Your task to perform on an android device: What's on the menu at Chipotle? Image 0: 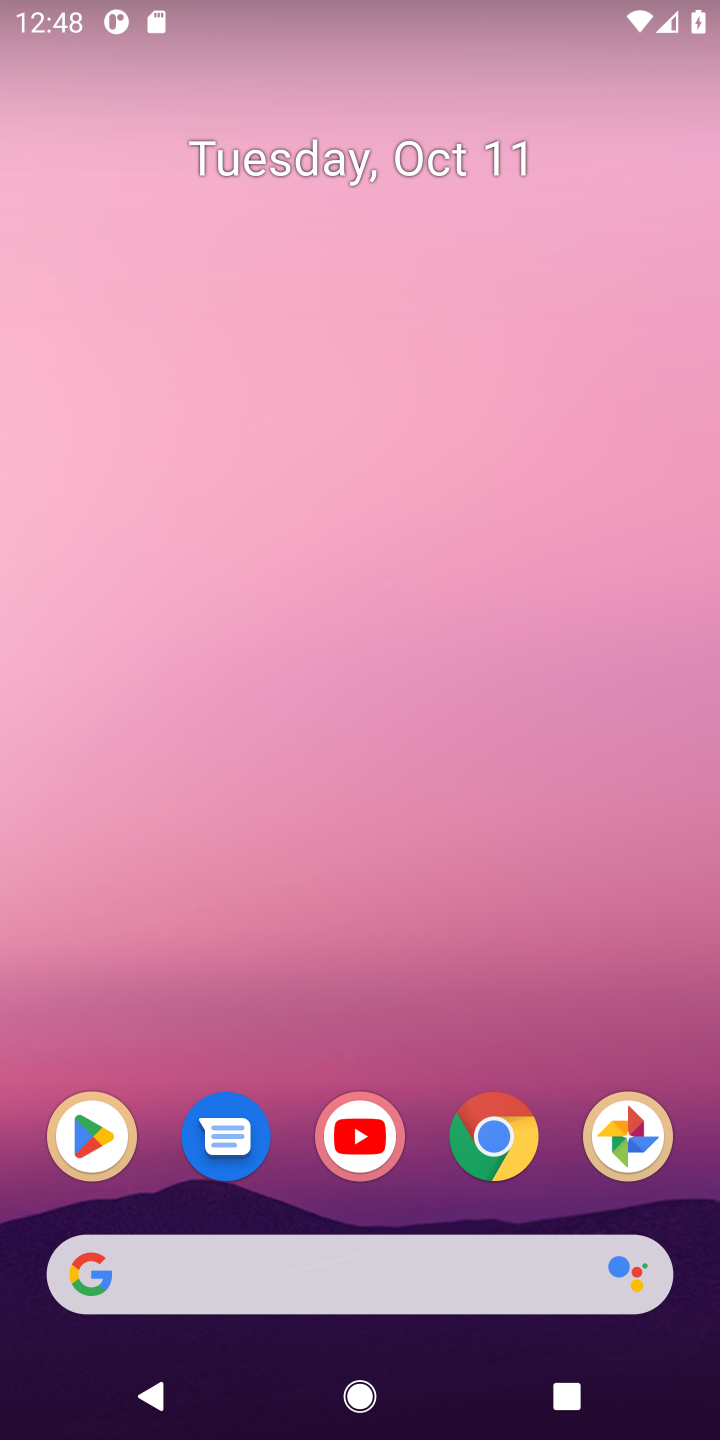
Step 0: press home button
Your task to perform on an android device: What's on the menu at Chipotle? Image 1: 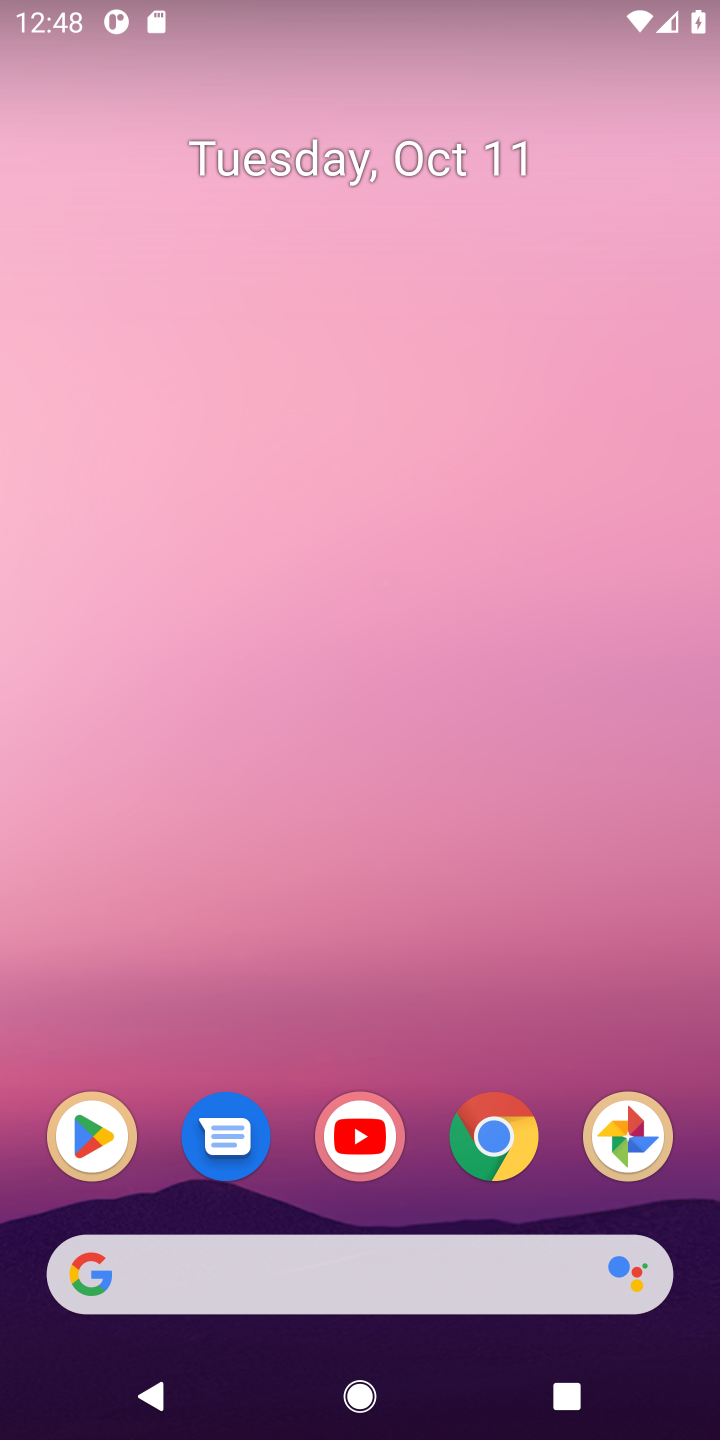
Step 1: click (354, 1269)
Your task to perform on an android device: What's on the menu at Chipotle? Image 2: 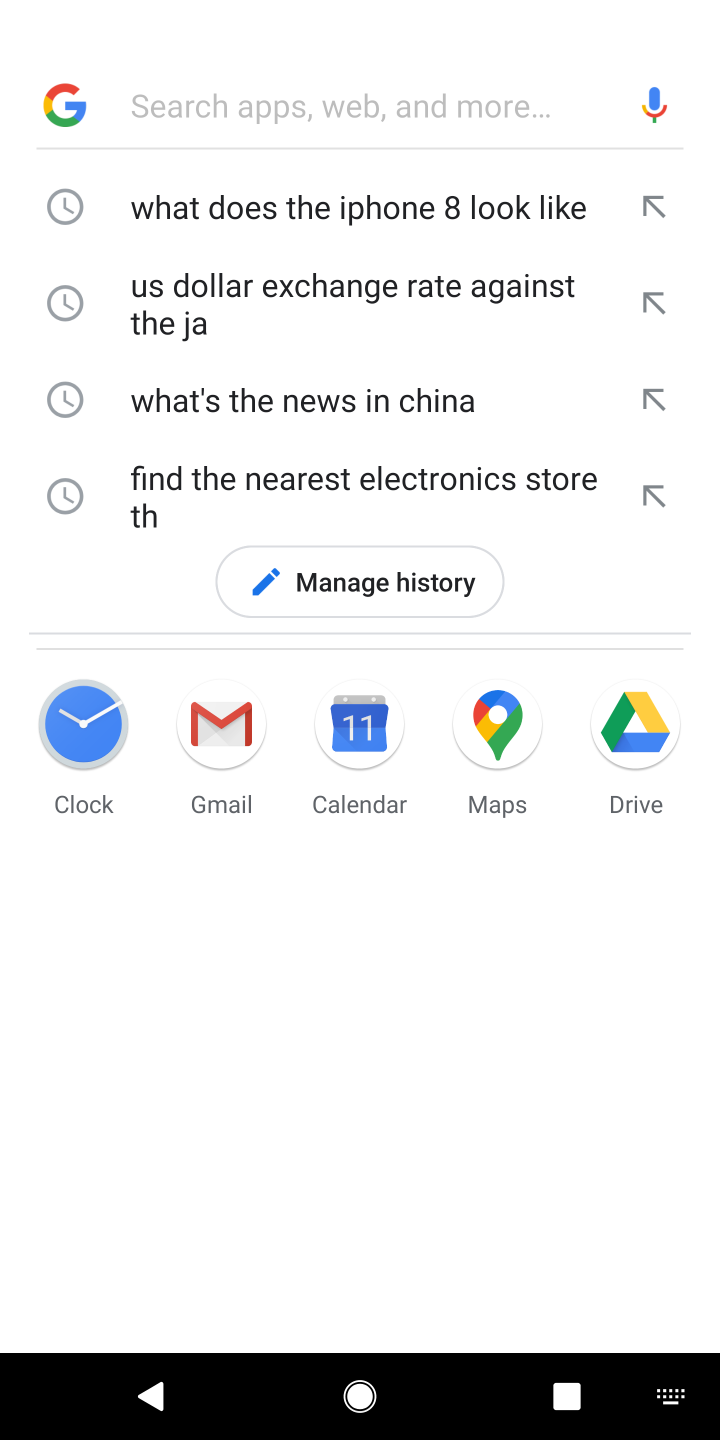
Step 2: type "What's on the menu at Chipotle"
Your task to perform on an android device: What's on the menu at Chipotle? Image 3: 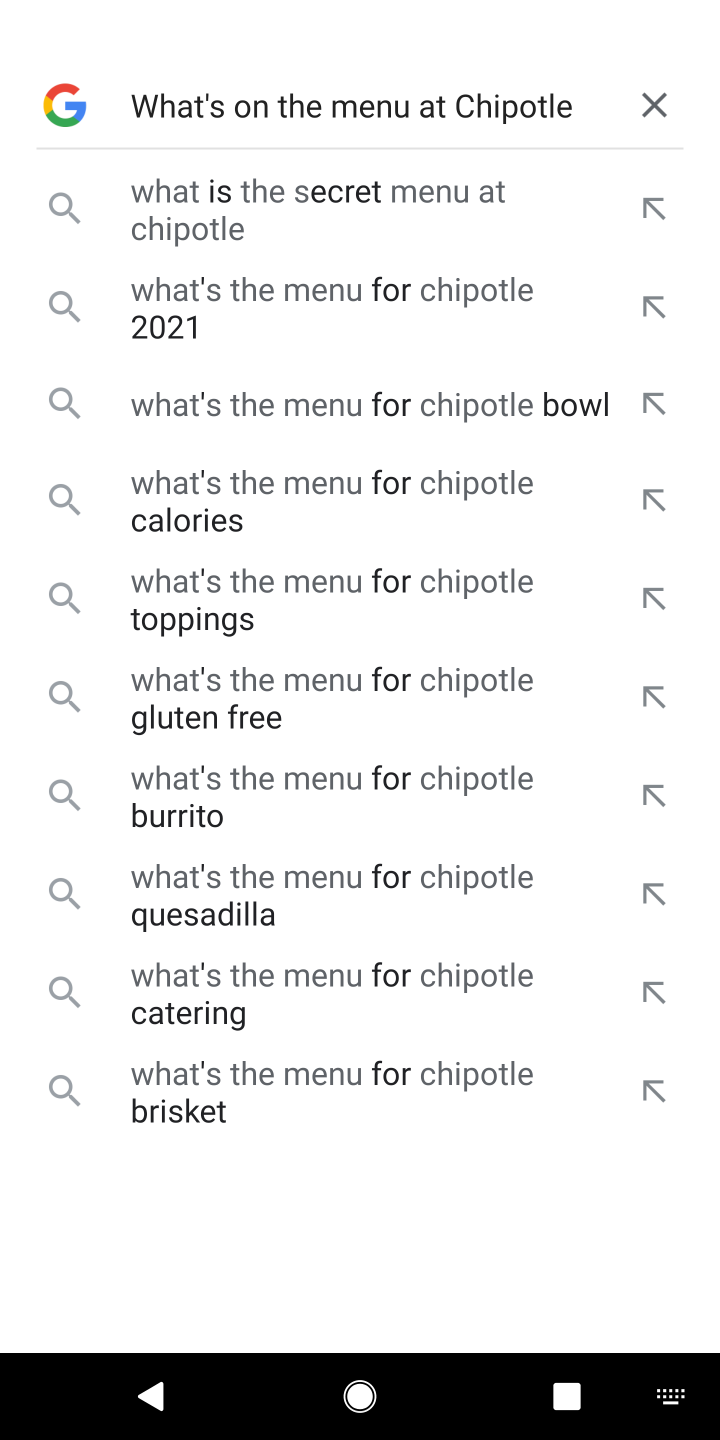
Step 3: press enter
Your task to perform on an android device: What's on the menu at Chipotle? Image 4: 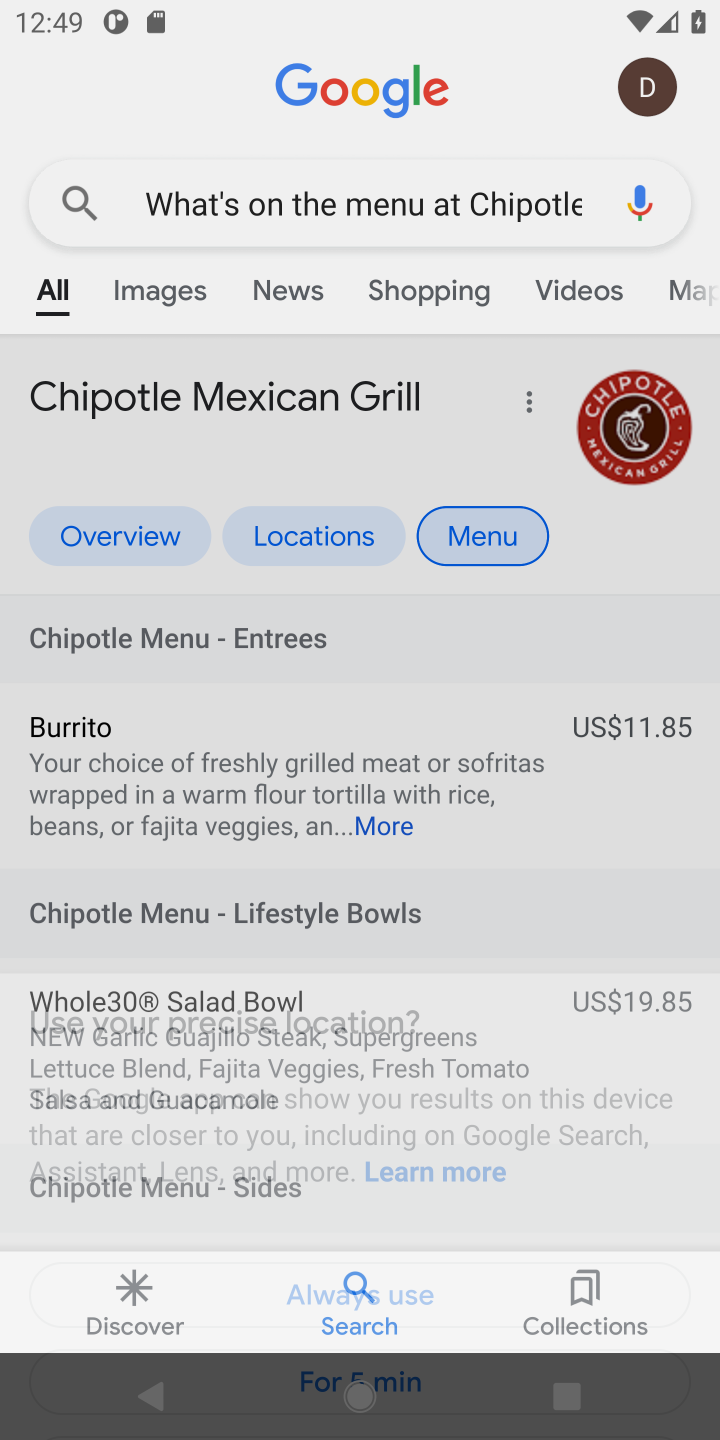
Step 4: drag from (369, 1008) to (370, 783)
Your task to perform on an android device: What's on the menu at Chipotle? Image 5: 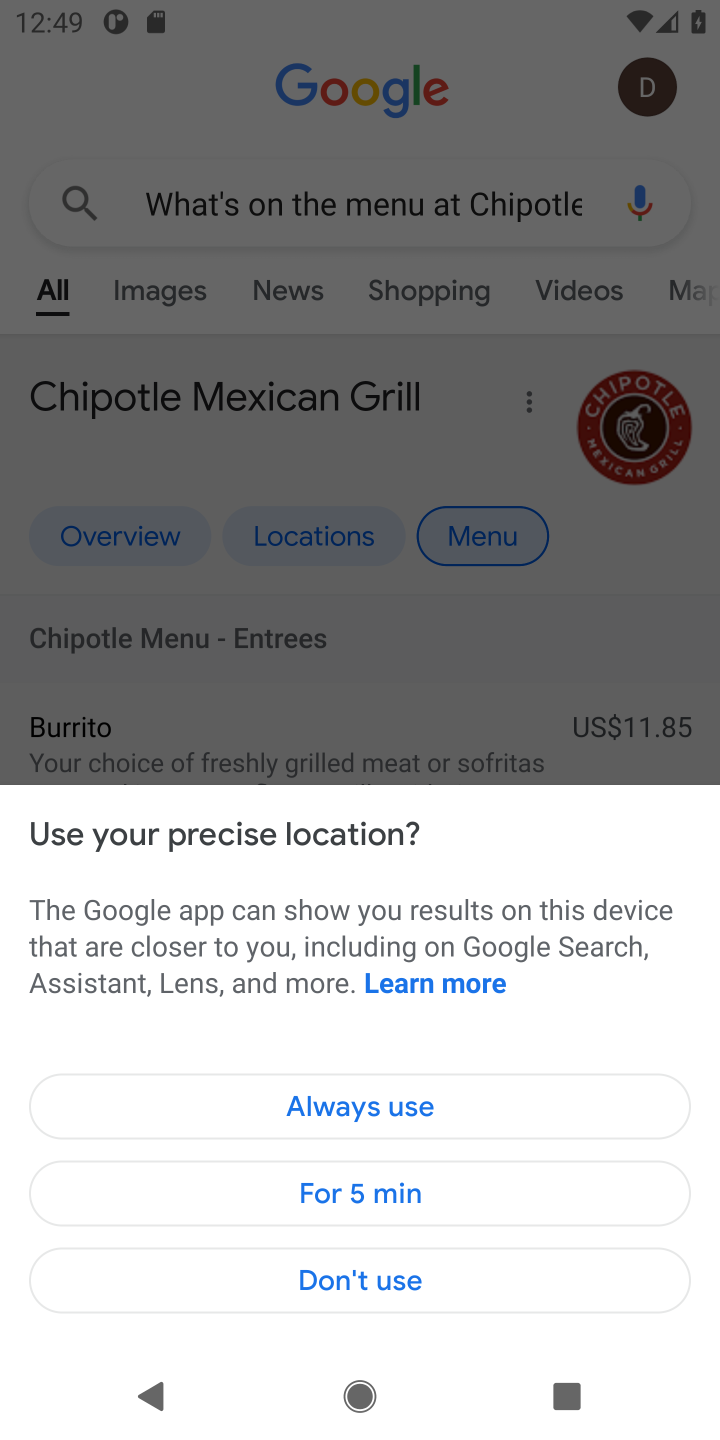
Step 5: click (419, 1282)
Your task to perform on an android device: What's on the menu at Chipotle? Image 6: 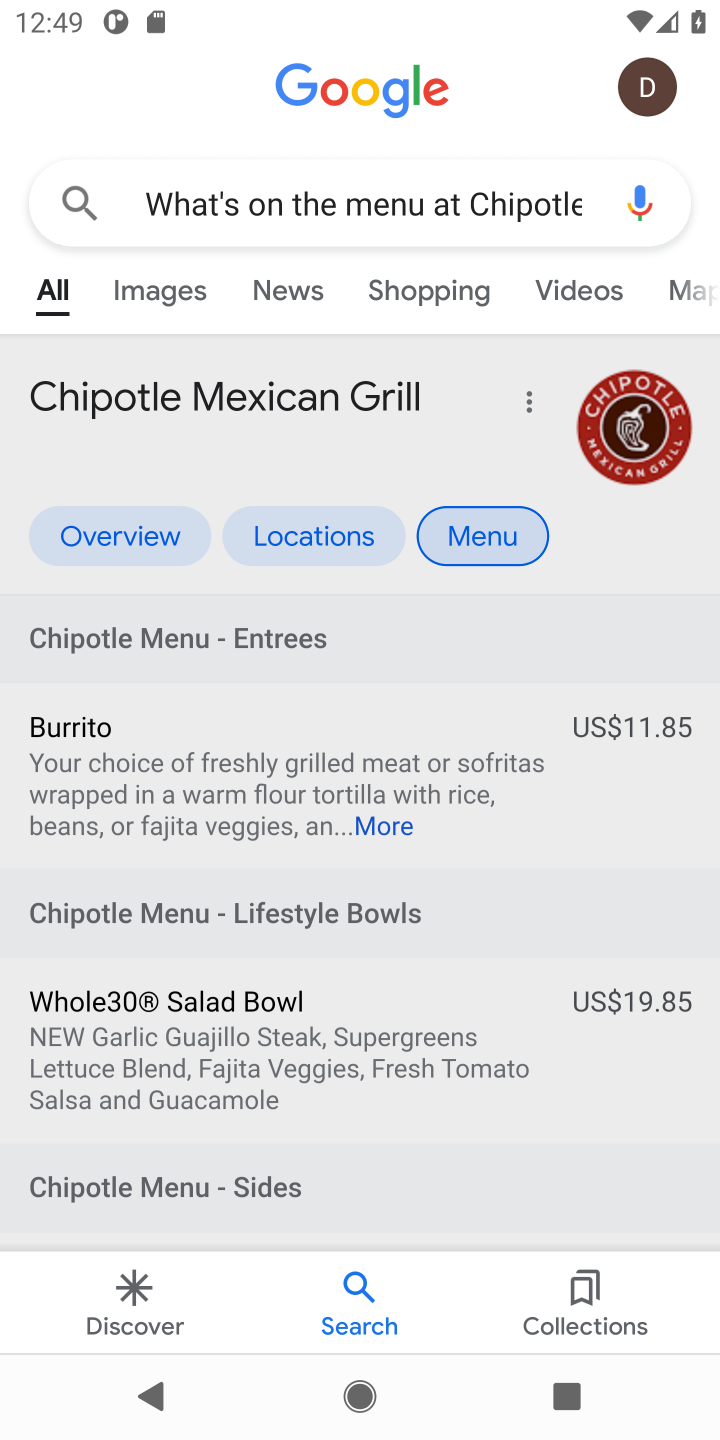
Step 6: drag from (395, 1054) to (404, 672)
Your task to perform on an android device: What's on the menu at Chipotle? Image 7: 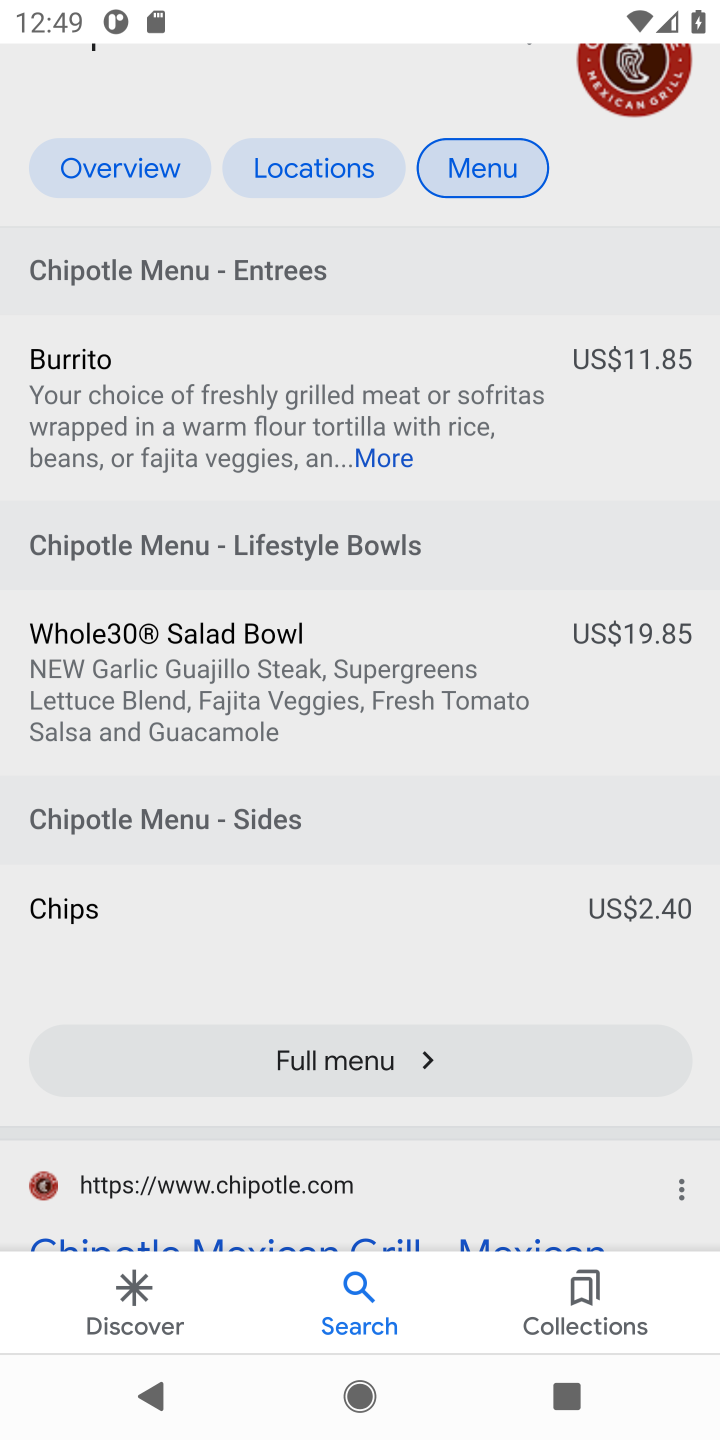
Step 7: click (329, 1052)
Your task to perform on an android device: What's on the menu at Chipotle? Image 8: 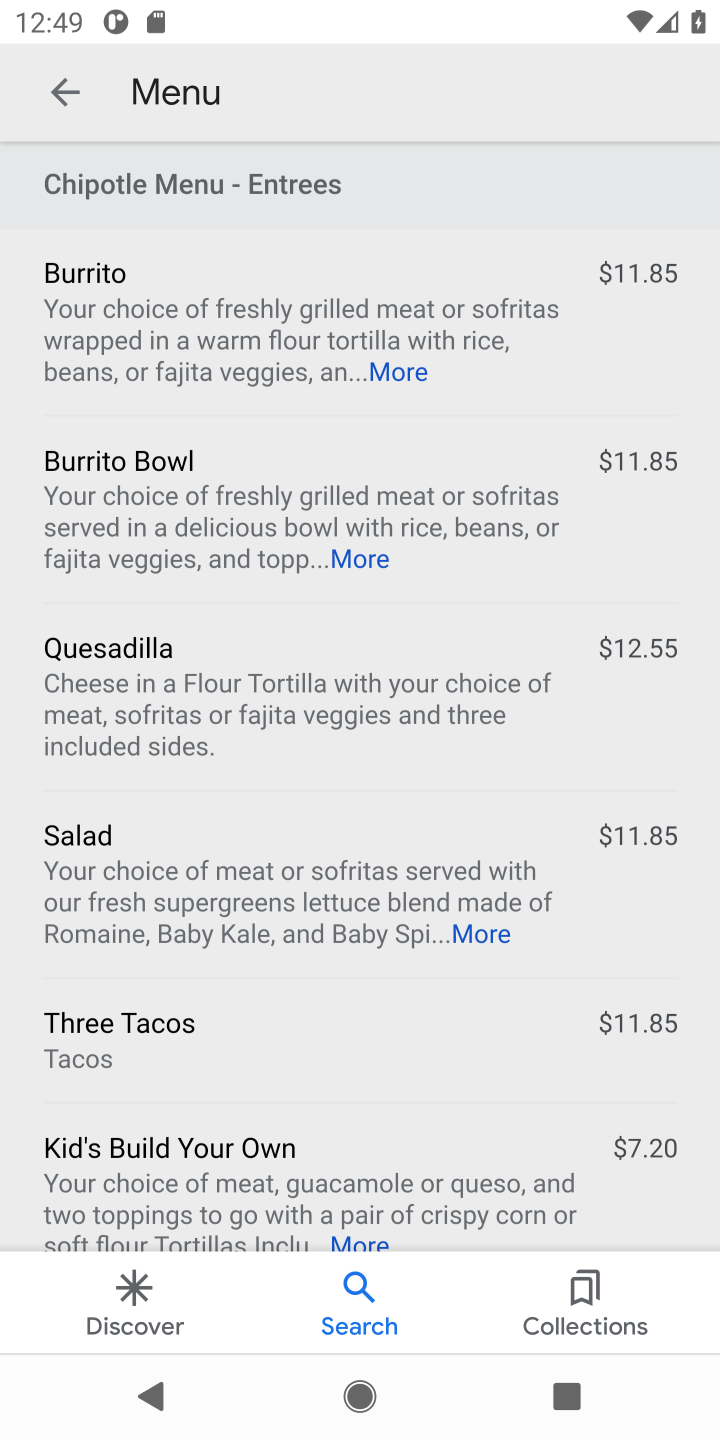
Step 8: task complete